Your task to perform on an android device: Go to location settings Image 0: 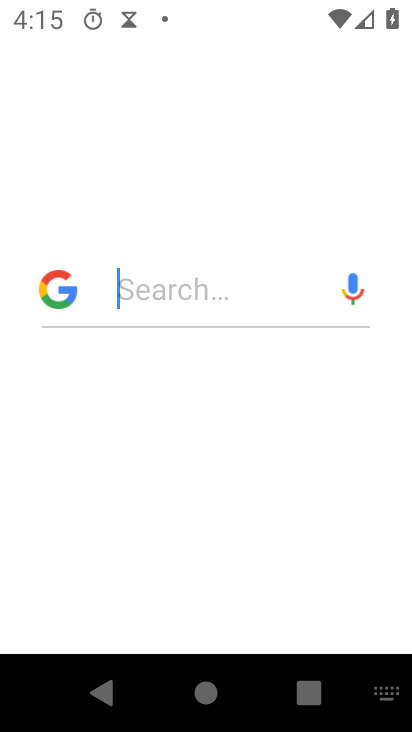
Step 0: drag from (335, 562) to (349, 2)
Your task to perform on an android device: Go to location settings Image 1: 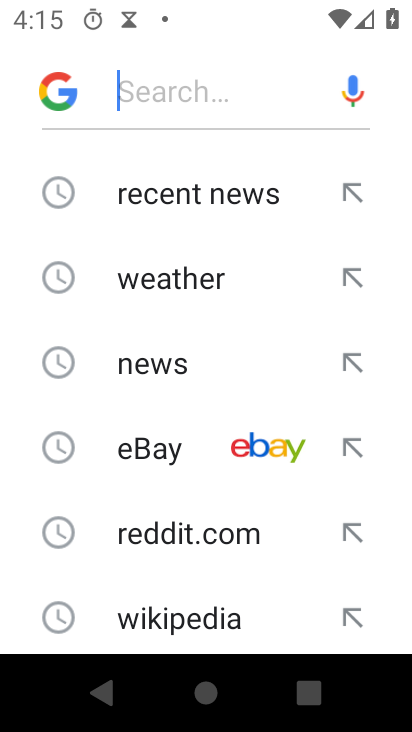
Step 1: press home button
Your task to perform on an android device: Go to location settings Image 2: 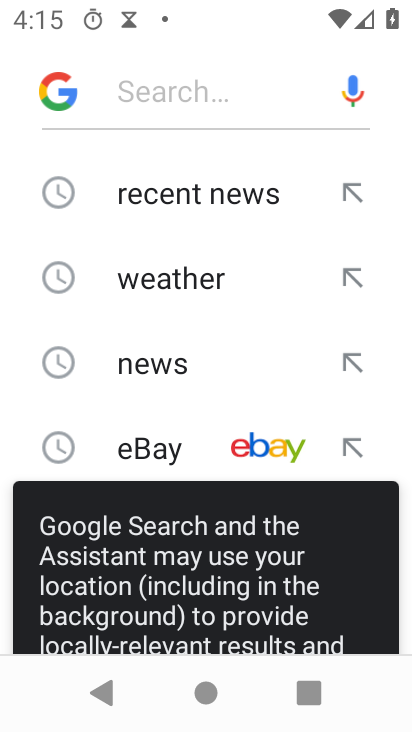
Step 2: drag from (349, 2) to (408, 667)
Your task to perform on an android device: Go to location settings Image 3: 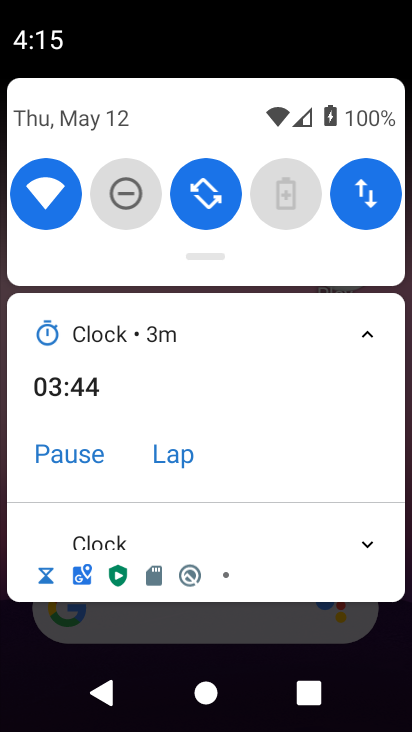
Step 3: press home button
Your task to perform on an android device: Go to location settings Image 4: 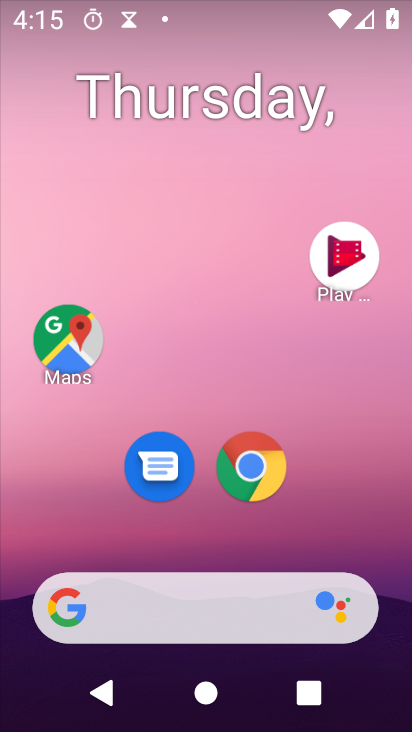
Step 4: drag from (279, 649) to (286, 0)
Your task to perform on an android device: Go to location settings Image 5: 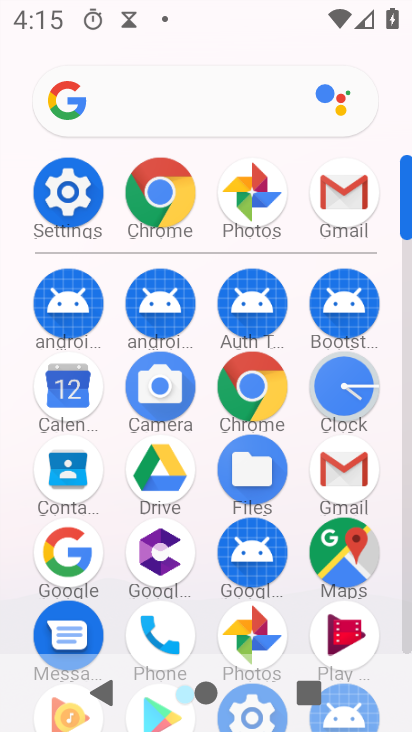
Step 5: drag from (293, 603) to (273, 341)
Your task to perform on an android device: Go to location settings Image 6: 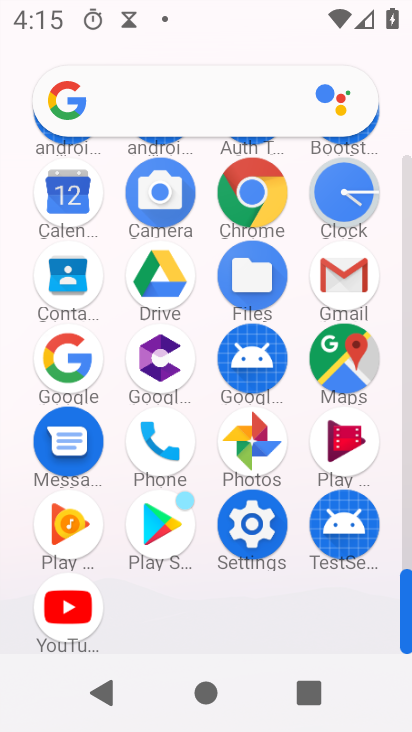
Step 6: click (244, 548)
Your task to perform on an android device: Go to location settings Image 7: 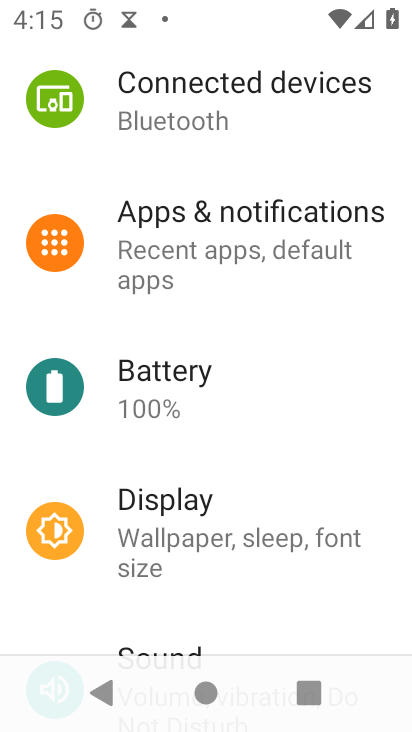
Step 7: drag from (288, 308) to (331, 171)
Your task to perform on an android device: Go to location settings Image 8: 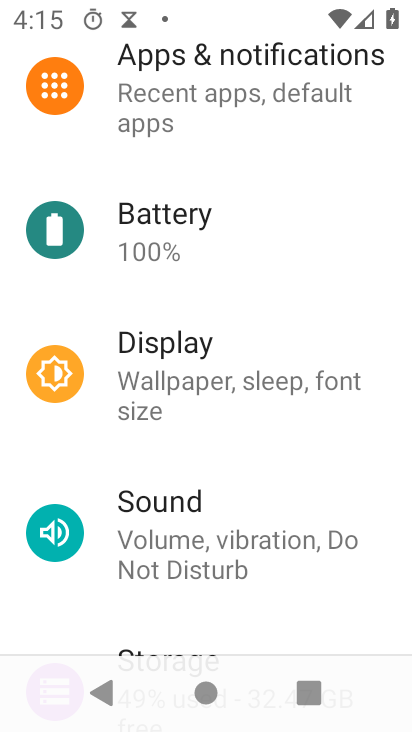
Step 8: drag from (306, 565) to (302, 34)
Your task to perform on an android device: Go to location settings Image 9: 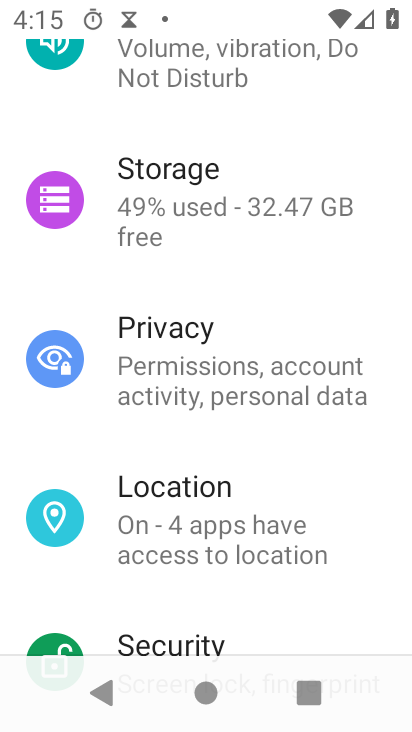
Step 9: click (266, 509)
Your task to perform on an android device: Go to location settings Image 10: 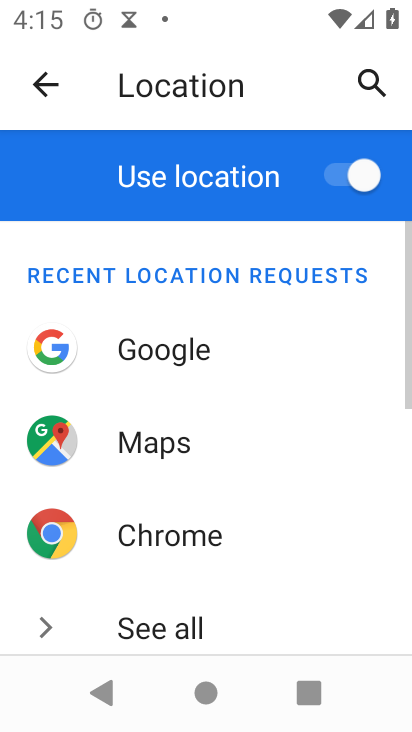
Step 10: task complete